Your task to perform on an android device: Add logitech g910 to the cart on costco Image 0: 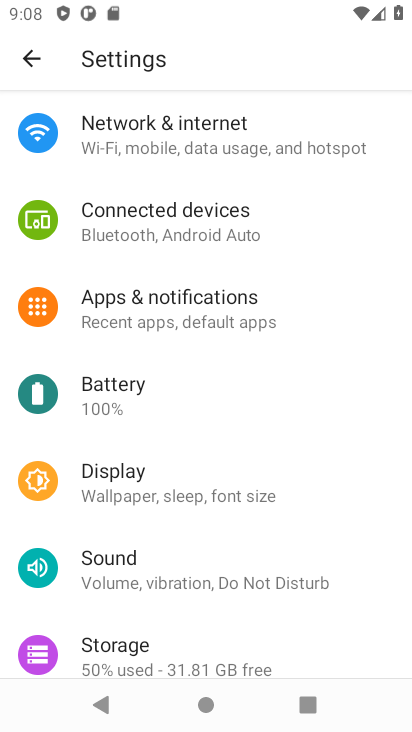
Step 0: press home button
Your task to perform on an android device: Add logitech g910 to the cart on costco Image 1: 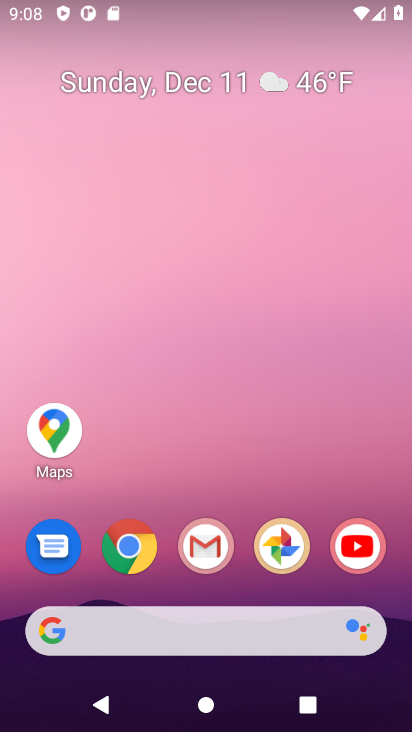
Step 1: click (135, 559)
Your task to perform on an android device: Add logitech g910 to the cart on costco Image 2: 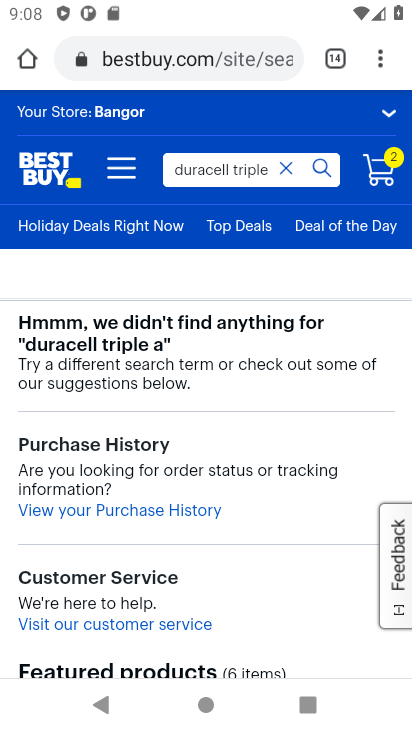
Step 2: click (159, 60)
Your task to perform on an android device: Add logitech g910 to the cart on costco Image 3: 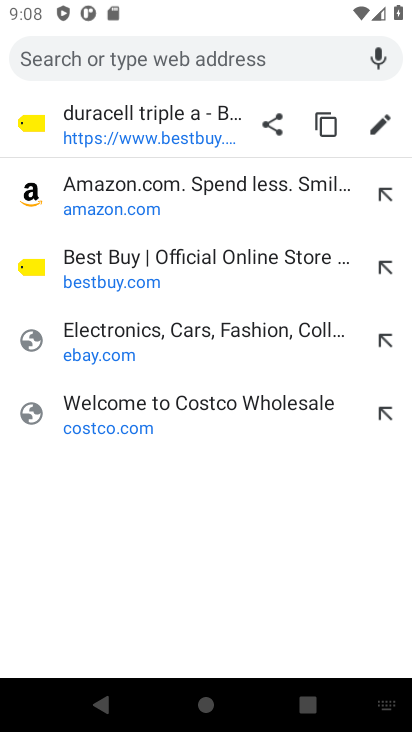
Step 3: click (147, 427)
Your task to perform on an android device: Add logitech g910 to the cart on costco Image 4: 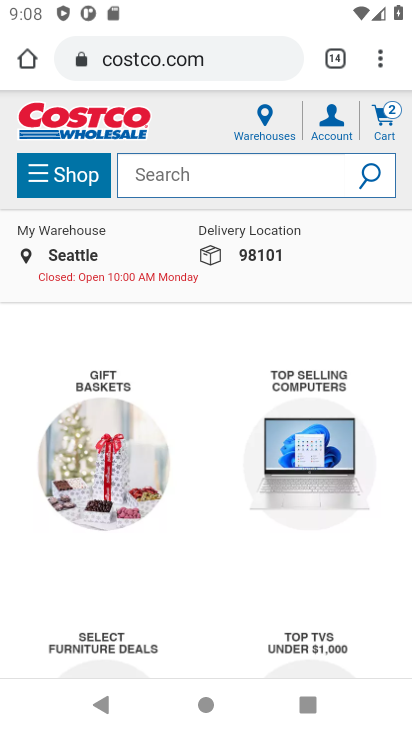
Step 4: click (191, 172)
Your task to perform on an android device: Add logitech g910 to the cart on costco Image 5: 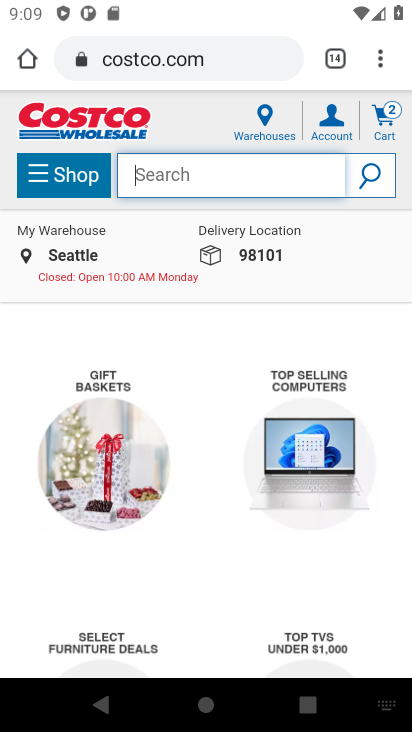
Step 5: type "logitech g910"
Your task to perform on an android device: Add logitech g910 to the cart on costco Image 6: 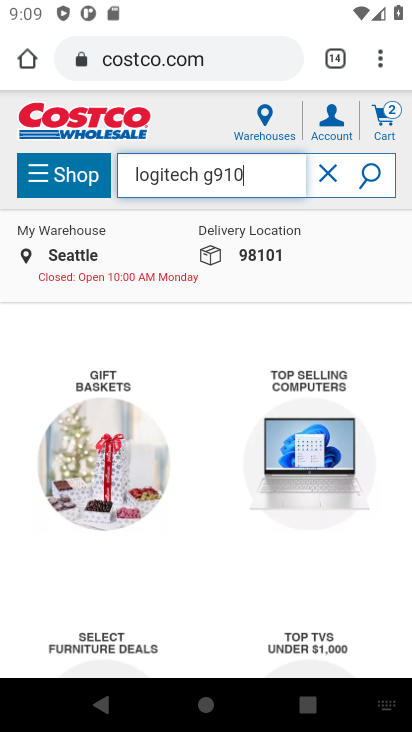
Step 6: click (371, 174)
Your task to perform on an android device: Add logitech g910 to the cart on costco Image 7: 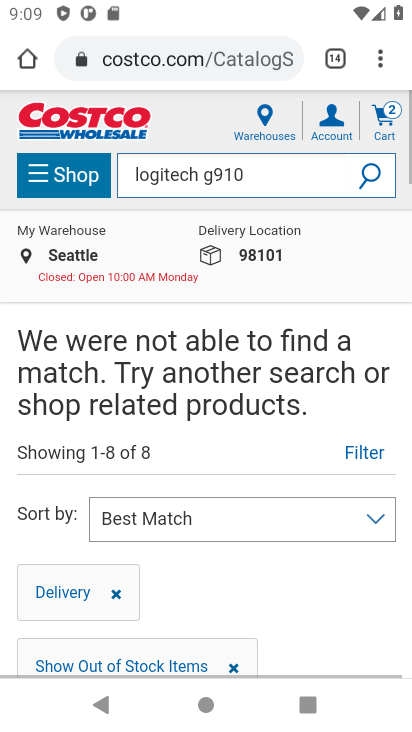
Step 7: task complete